Your task to perform on an android device: toggle location history Image 0: 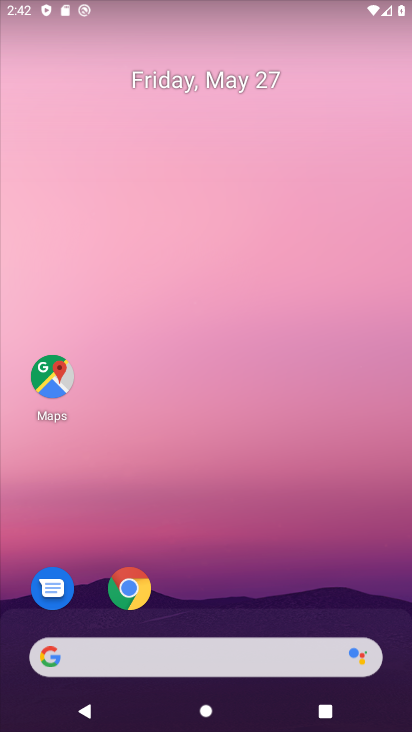
Step 0: drag from (240, 623) to (232, 264)
Your task to perform on an android device: toggle location history Image 1: 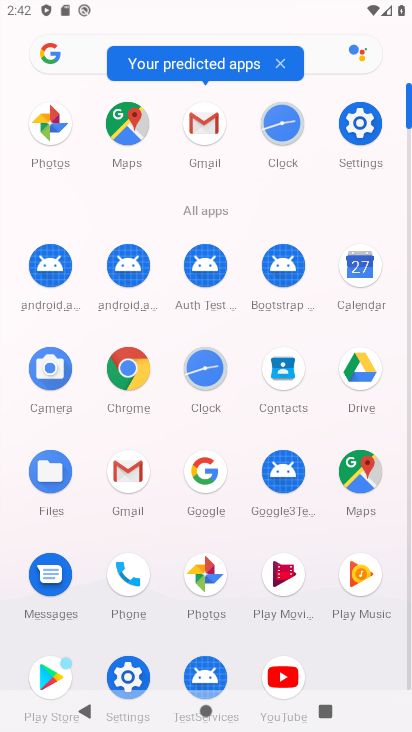
Step 1: click (134, 672)
Your task to perform on an android device: toggle location history Image 2: 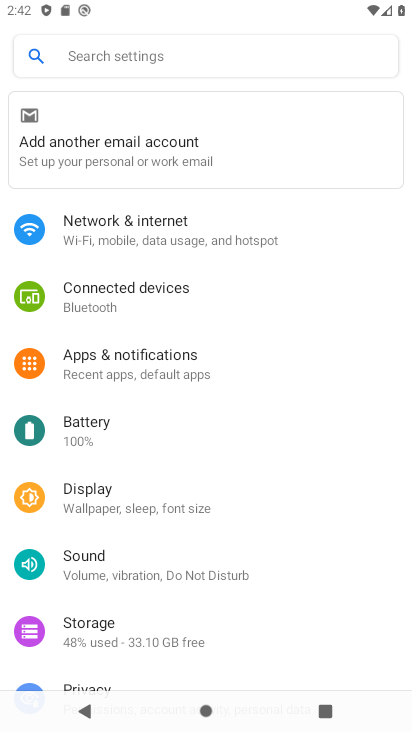
Step 2: drag from (150, 604) to (172, 385)
Your task to perform on an android device: toggle location history Image 3: 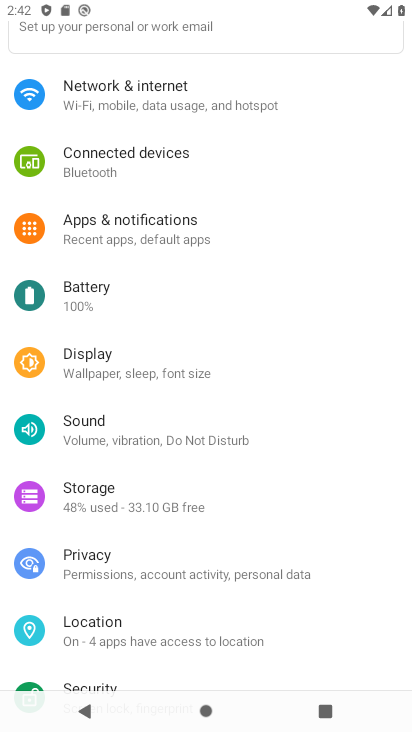
Step 3: click (129, 632)
Your task to perform on an android device: toggle location history Image 4: 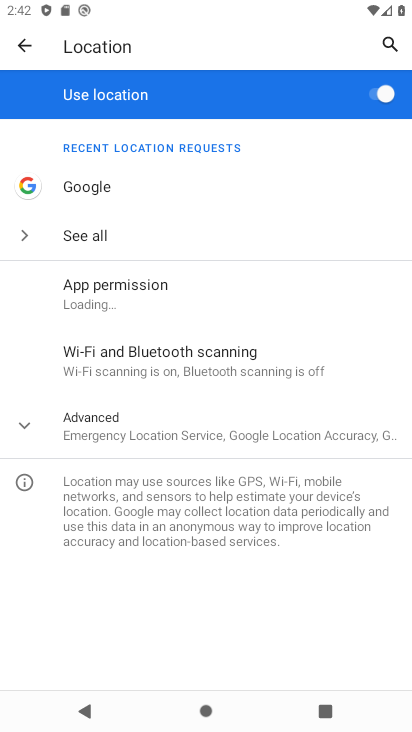
Step 4: click (113, 415)
Your task to perform on an android device: toggle location history Image 5: 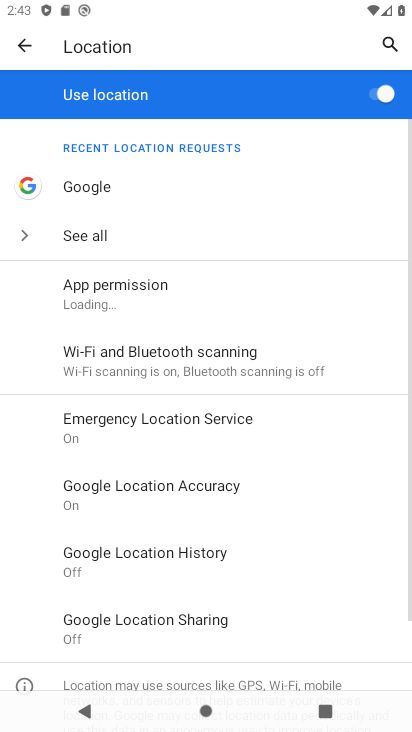
Step 5: click (139, 567)
Your task to perform on an android device: toggle location history Image 6: 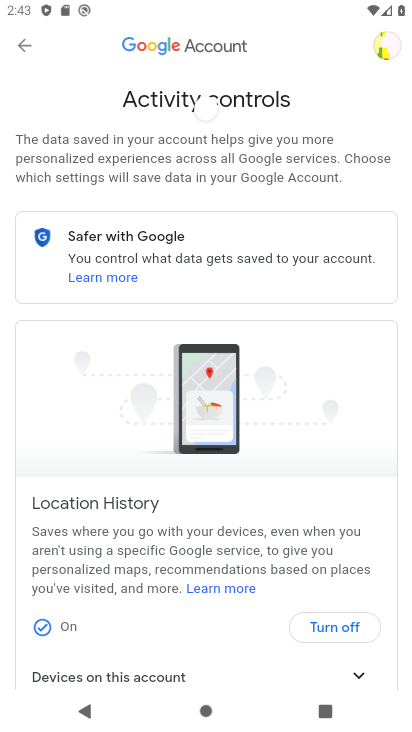
Step 6: click (313, 615)
Your task to perform on an android device: toggle location history Image 7: 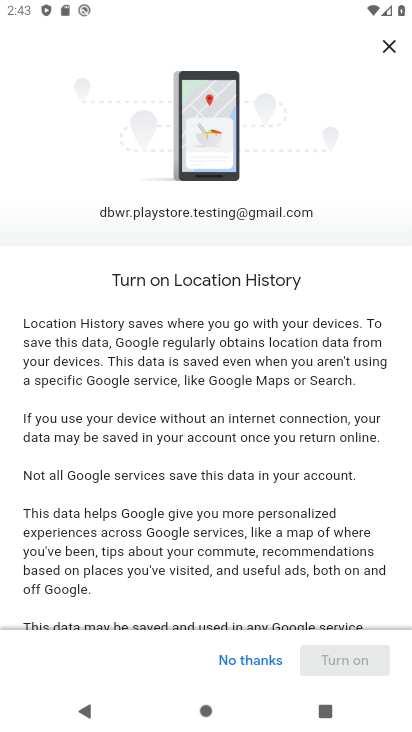
Step 7: drag from (299, 431) to (273, 8)
Your task to perform on an android device: toggle location history Image 8: 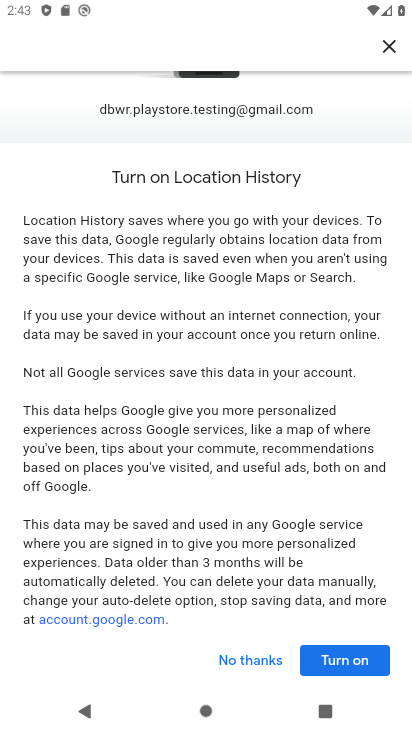
Step 8: click (350, 667)
Your task to perform on an android device: toggle location history Image 9: 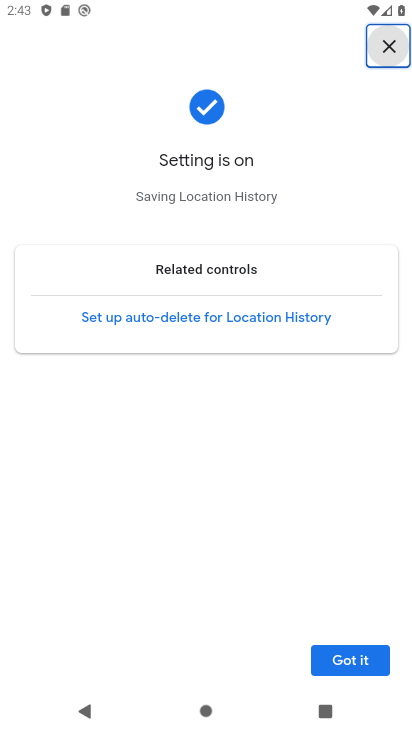
Step 9: click (350, 658)
Your task to perform on an android device: toggle location history Image 10: 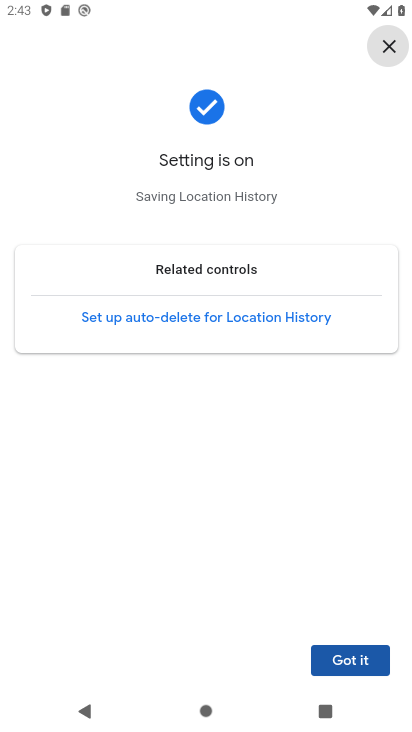
Step 10: task complete